Your task to perform on an android device: Open Reddit.com Image 0: 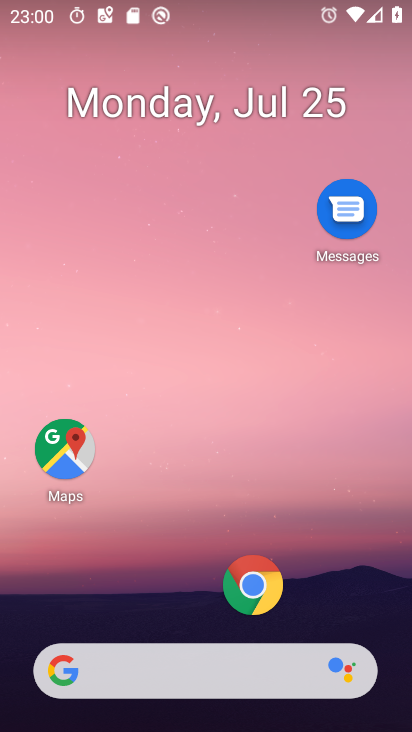
Step 0: press home button
Your task to perform on an android device: Open Reddit.com Image 1: 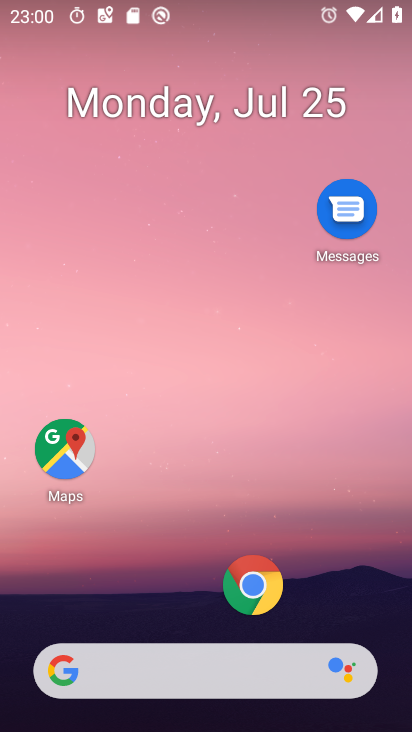
Step 1: click (255, 589)
Your task to perform on an android device: Open Reddit.com Image 2: 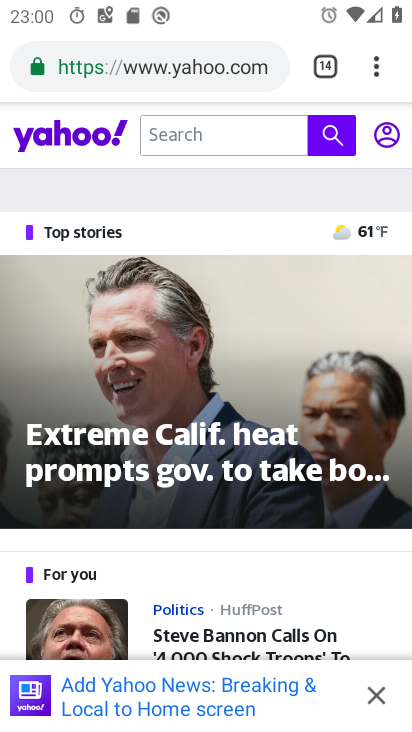
Step 2: drag from (376, 67) to (210, 136)
Your task to perform on an android device: Open Reddit.com Image 3: 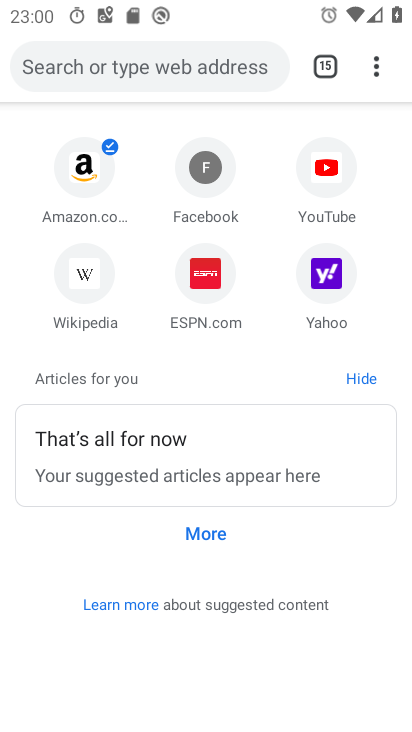
Step 3: click (125, 63)
Your task to perform on an android device: Open Reddit.com Image 4: 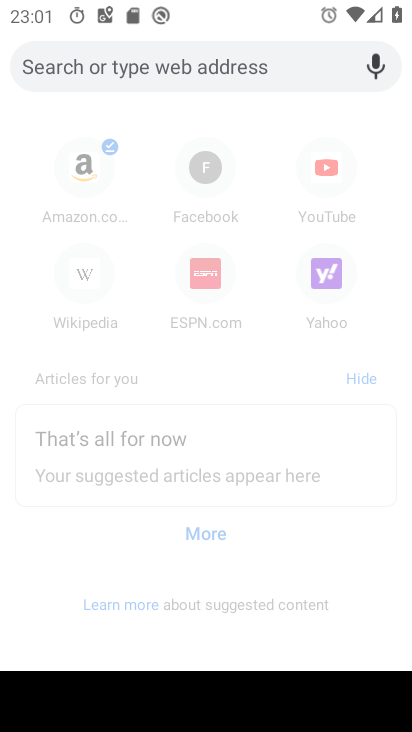
Step 4: type "reddit.com"
Your task to perform on an android device: Open Reddit.com Image 5: 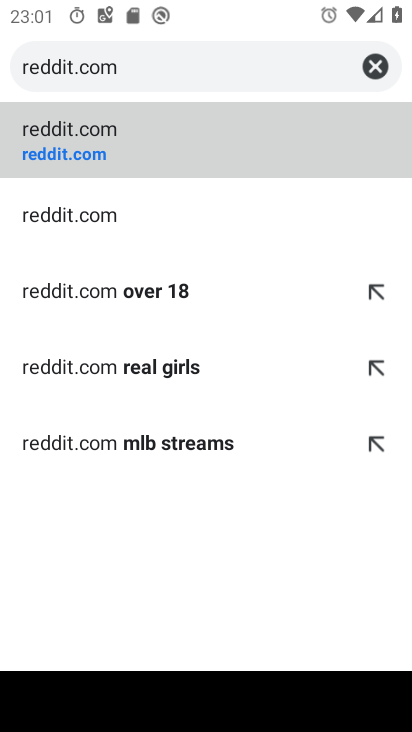
Step 5: click (106, 157)
Your task to perform on an android device: Open Reddit.com Image 6: 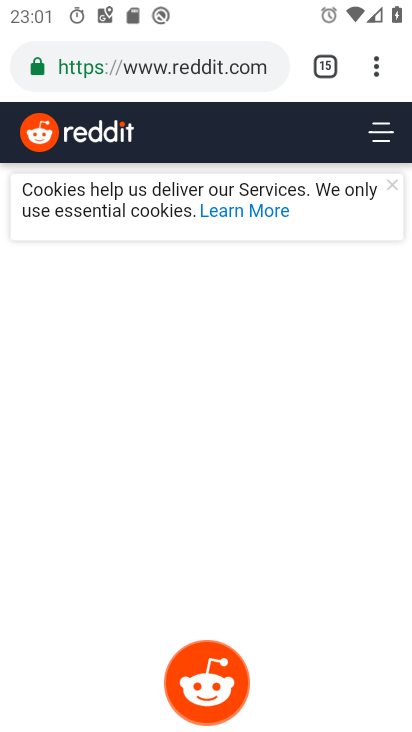
Step 6: task complete